Your task to perform on an android device: What's the weather today? Image 0: 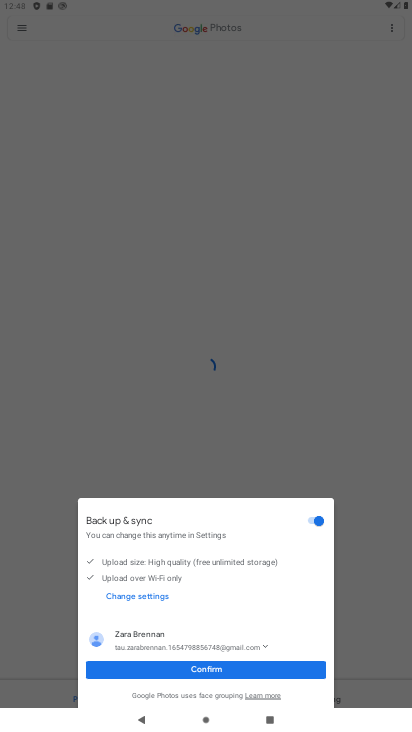
Step 0: press home button
Your task to perform on an android device: What's the weather today? Image 1: 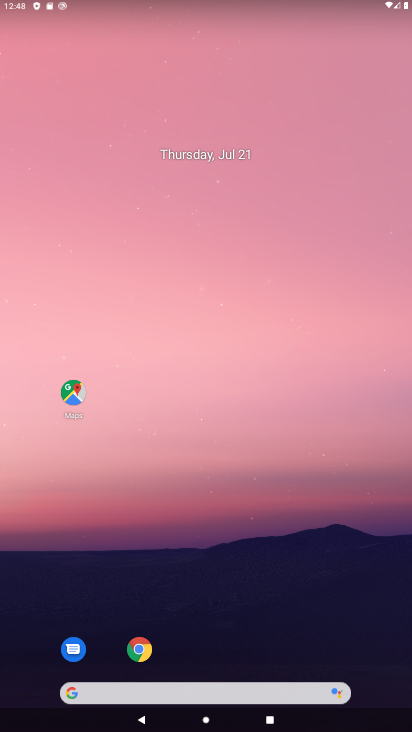
Step 1: click (139, 655)
Your task to perform on an android device: What's the weather today? Image 2: 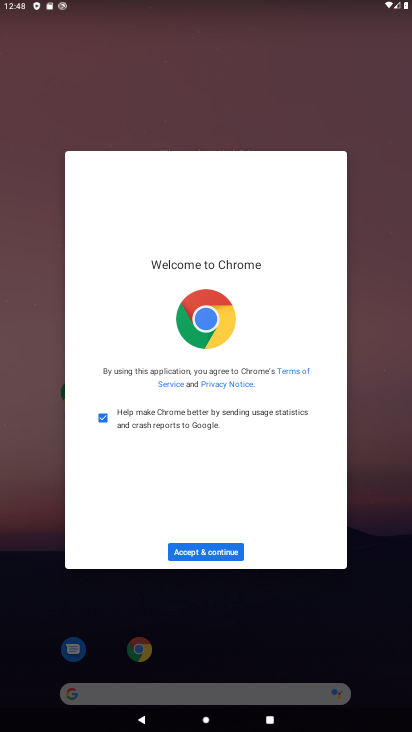
Step 2: click (230, 552)
Your task to perform on an android device: What's the weather today? Image 3: 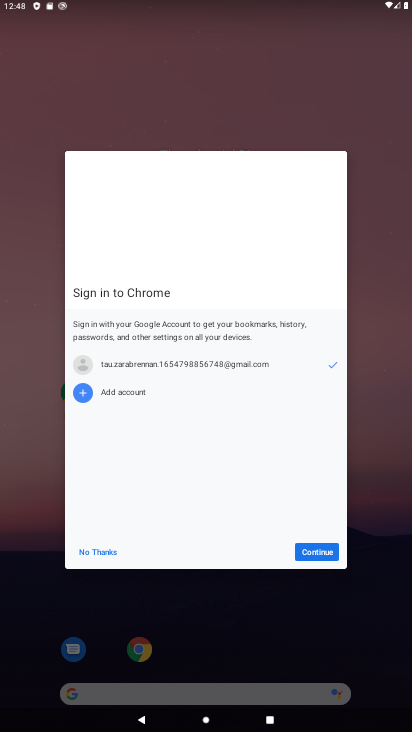
Step 3: click (312, 555)
Your task to perform on an android device: What's the weather today? Image 4: 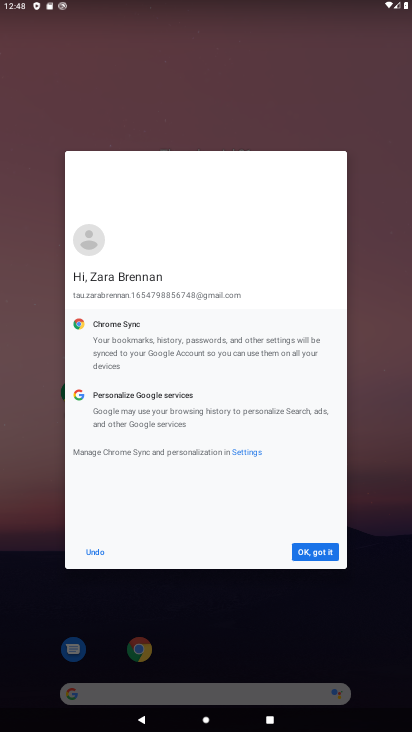
Step 4: click (314, 554)
Your task to perform on an android device: What's the weather today? Image 5: 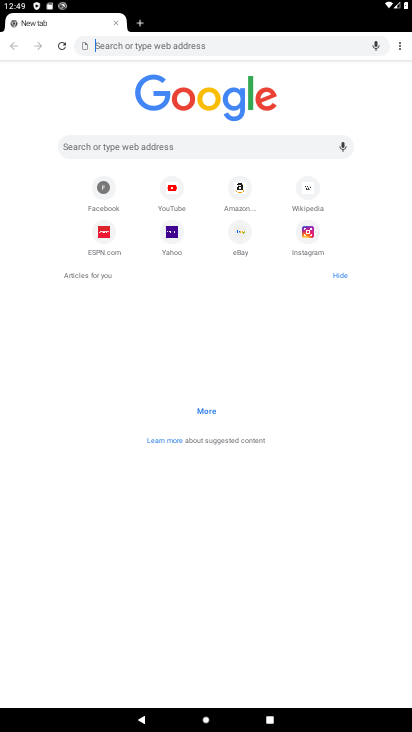
Step 5: click (206, 50)
Your task to perform on an android device: What's the weather today? Image 6: 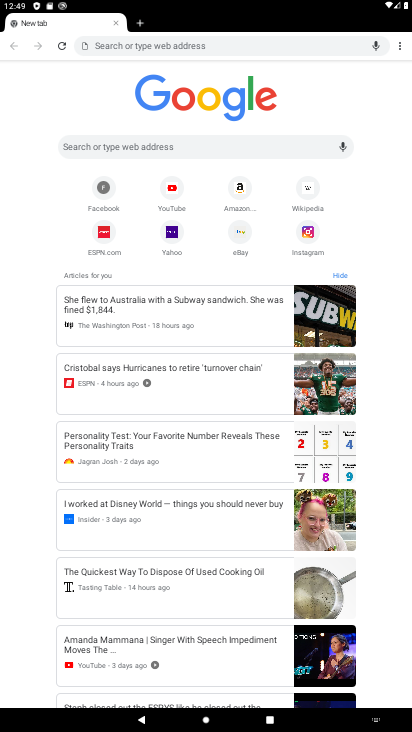
Step 6: type "What's the weather today?"
Your task to perform on an android device: What's the weather today? Image 7: 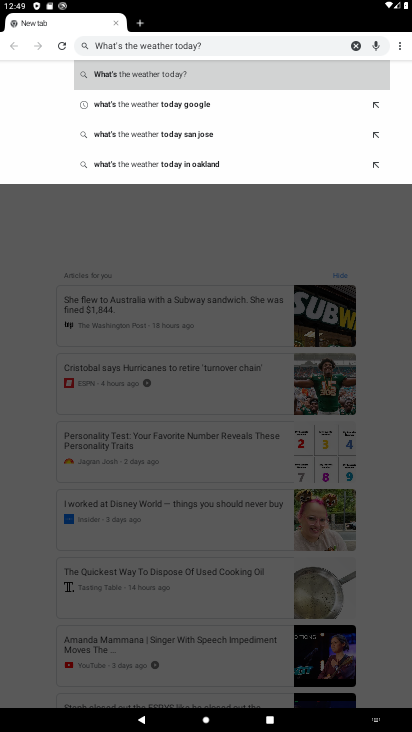
Step 7: click (201, 72)
Your task to perform on an android device: What's the weather today? Image 8: 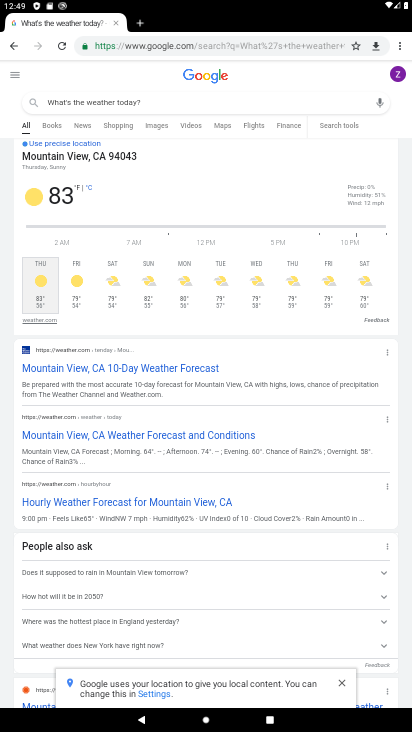
Step 8: task complete